Your task to perform on an android device: Add "sony triple a" to the cart on target.com, then select checkout. Image 0: 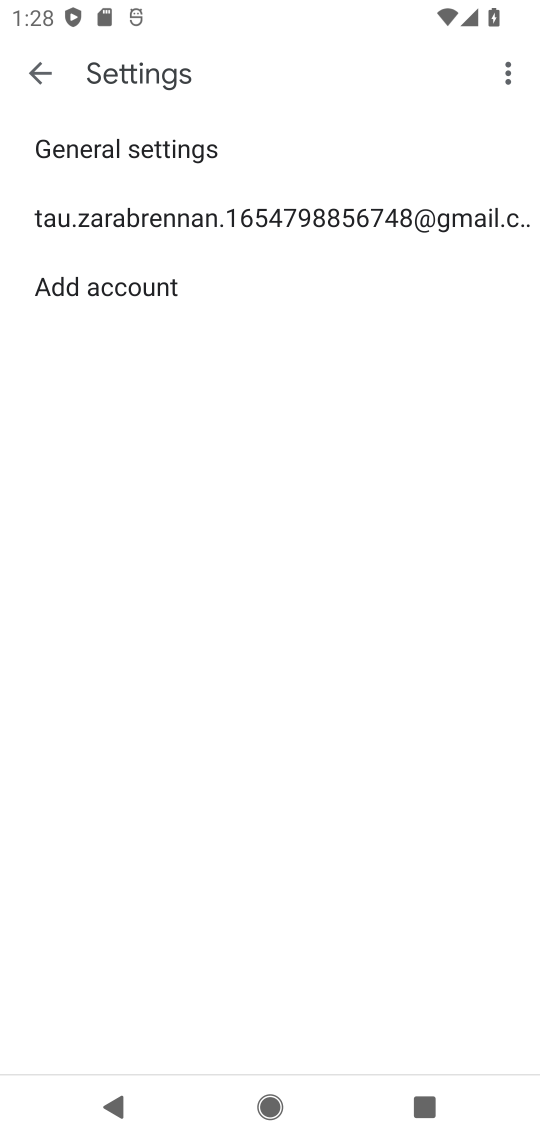
Step 0: press home button
Your task to perform on an android device: Add "sony triple a" to the cart on target.com, then select checkout. Image 1: 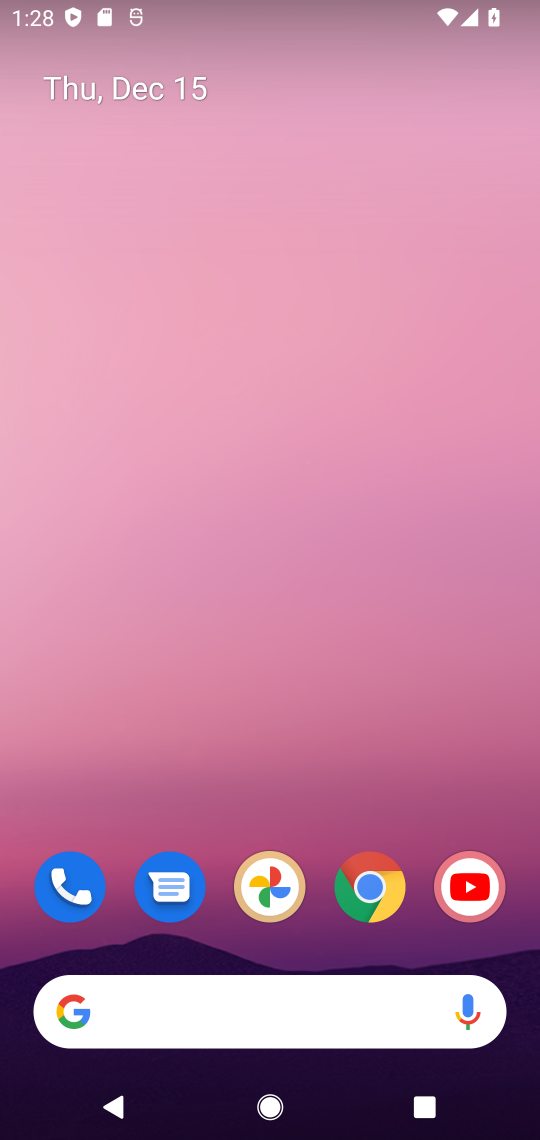
Step 1: click (382, 891)
Your task to perform on an android device: Add "sony triple a" to the cart on target.com, then select checkout. Image 2: 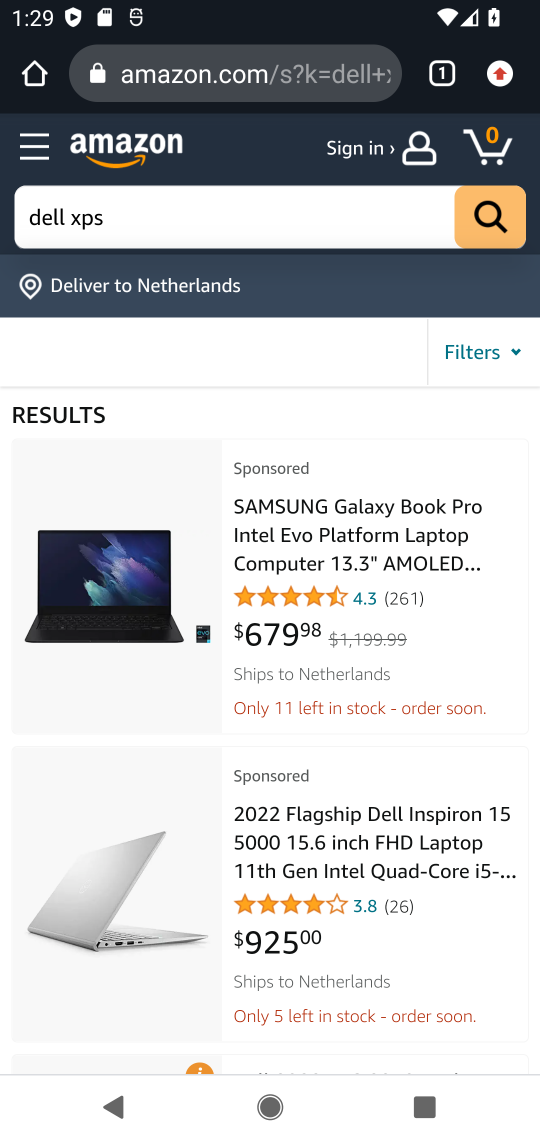
Step 2: click (218, 79)
Your task to perform on an android device: Add "sony triple a" to the cart on target.com, then select checkout. Image 3: 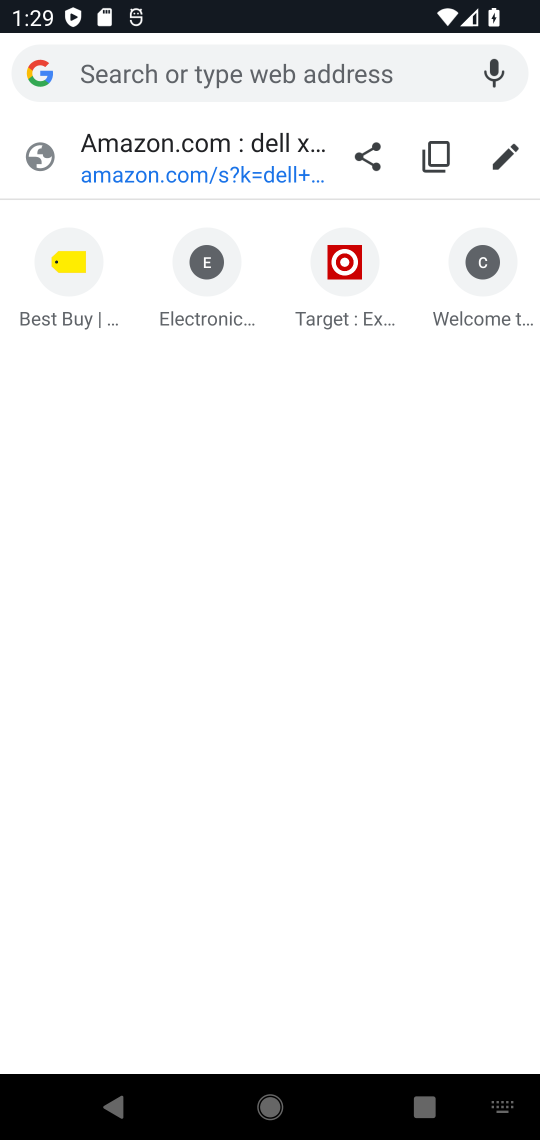
Step 3: click (339, 322)
Your task to perform on an android device: Add "sony triple a" to the cart on target.com, then select checkout. Image 4: 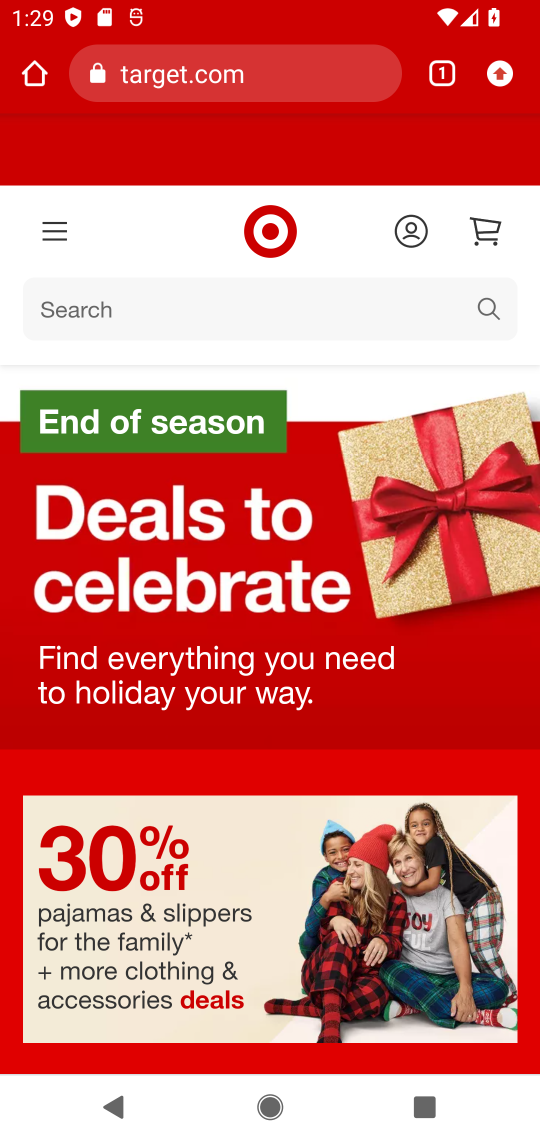
Step 4: click (49, 311)
Your task to perform on an android device: Add "sony triple a" to the cart on target.com, then select checkout. Image 5: 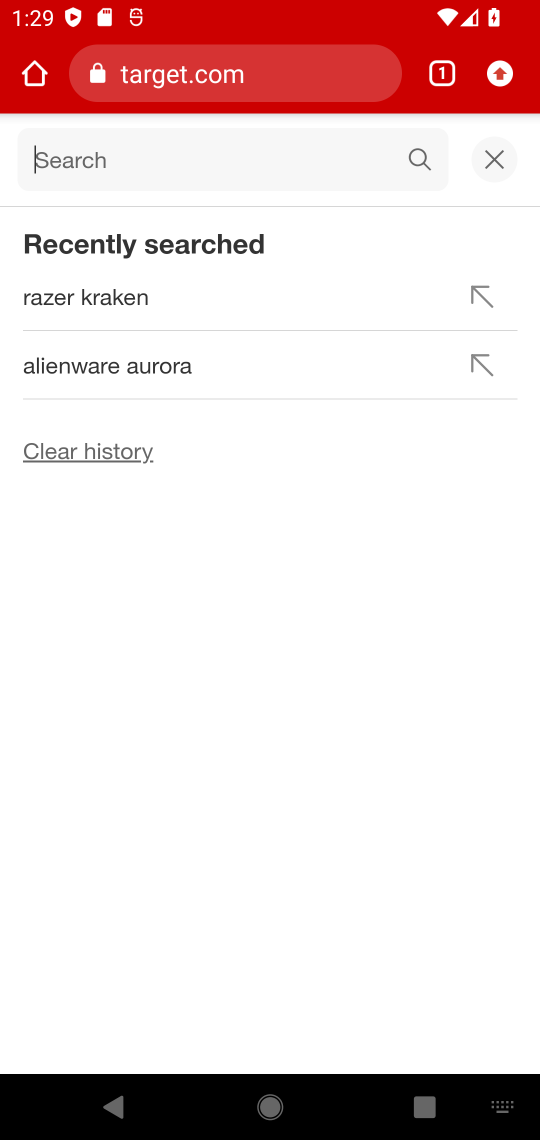
Step 5: type "sony triple a"
Your task to perform on an android device: Add "sony triple a" to the cart on target.com, then select checkout. Image 6: 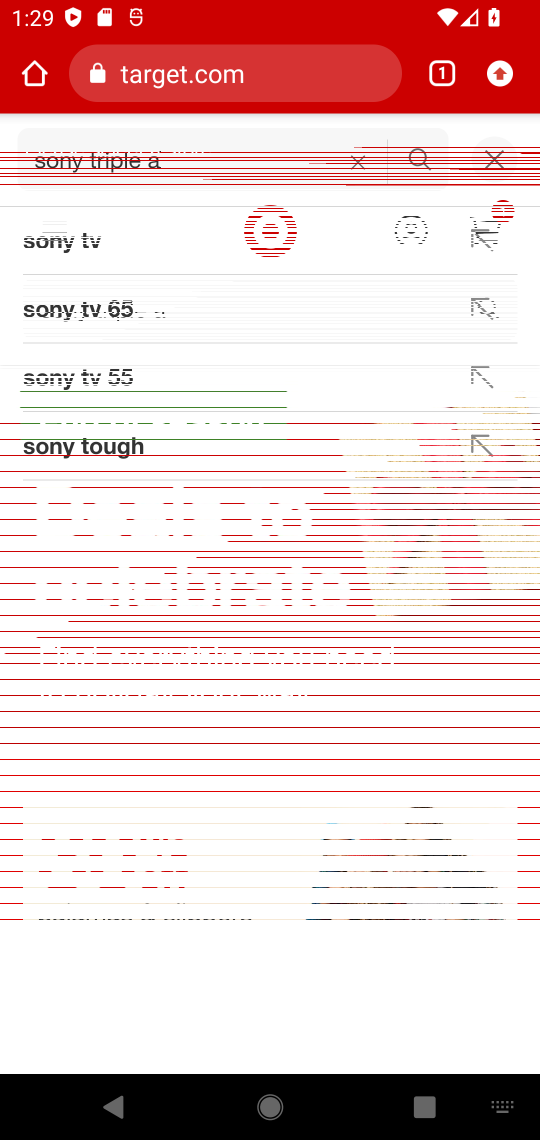
Step 6: click (418, 160)
Your task to perform on an android device: Add "sony triple a" to the cart on target.com, then select checkout. Image 7: 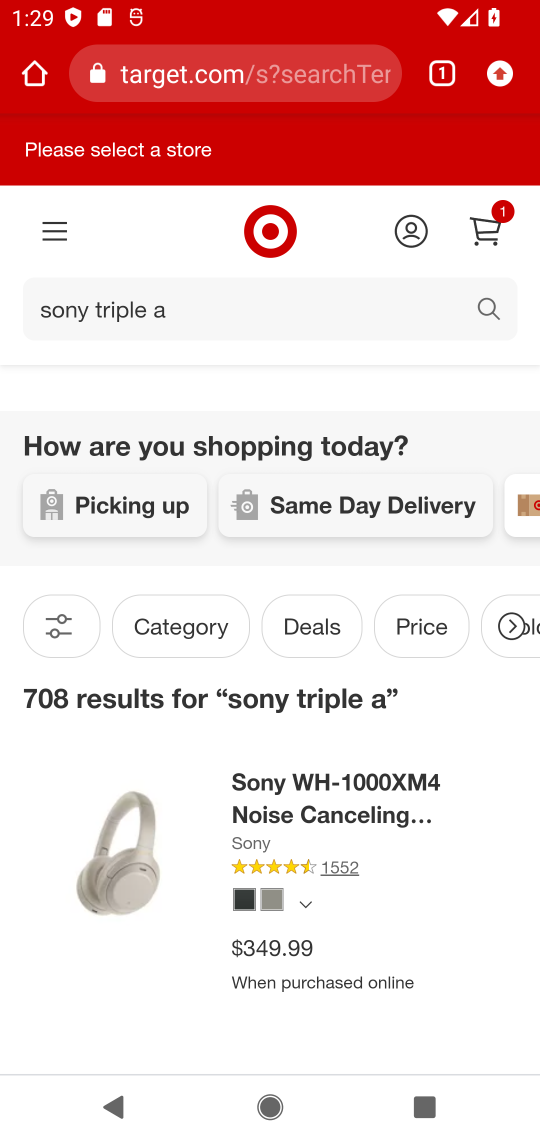
Step 7: task complete